Your task to perform on an android device: add a contact in the contacts app Image 0: 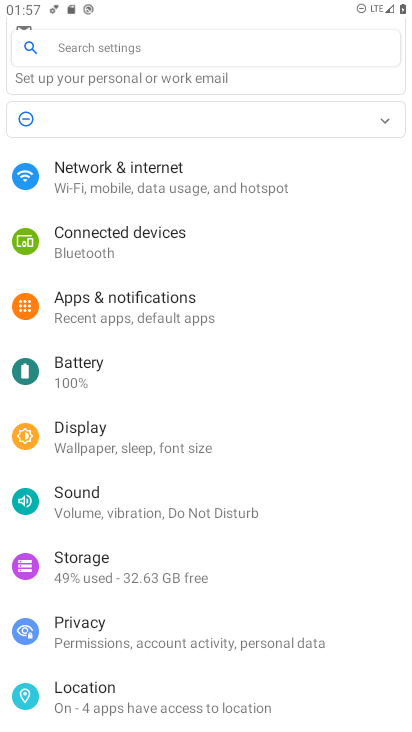
Step 0: press home button
Your task to perform on an android device: add a contact in the contacts app Image 1: 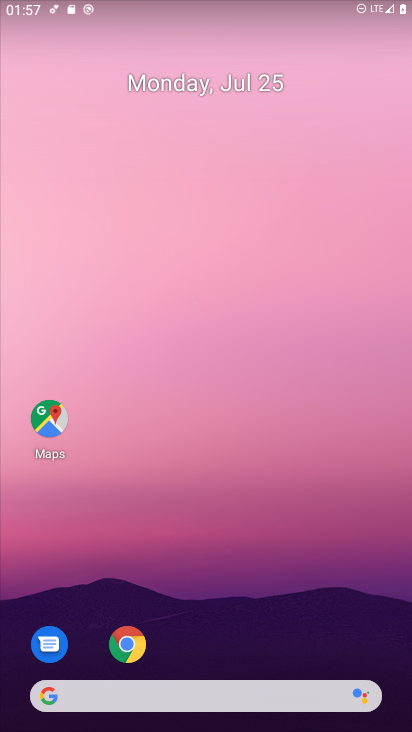
Step 1: drag from (199, 722) to (193, 219)
Your task to perform on an android device: add a contact in the contacts app Image 2: 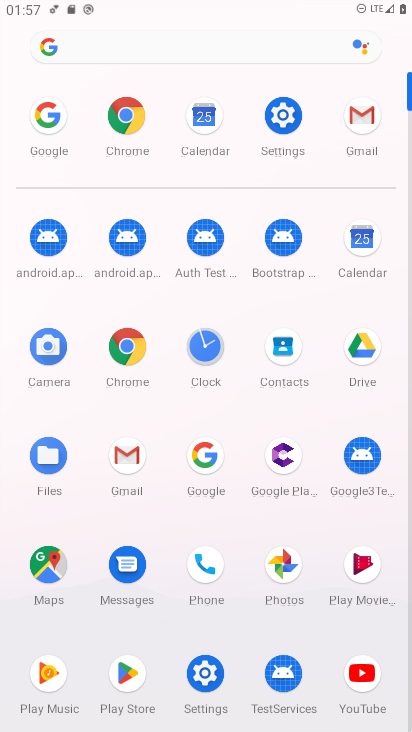
Step 2: click (289, 350)
Your task to perform on an android device: add a contact in the contacts app Image 3: 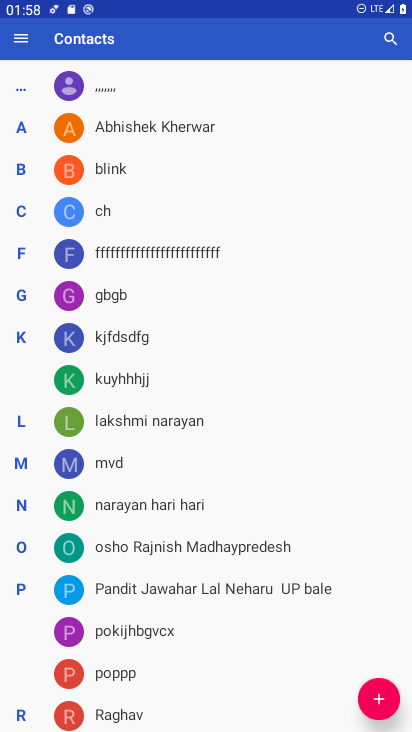
Step 3: click (373, 701)
Your task to perform on an android device: add a contact in the contacts app Image 4: 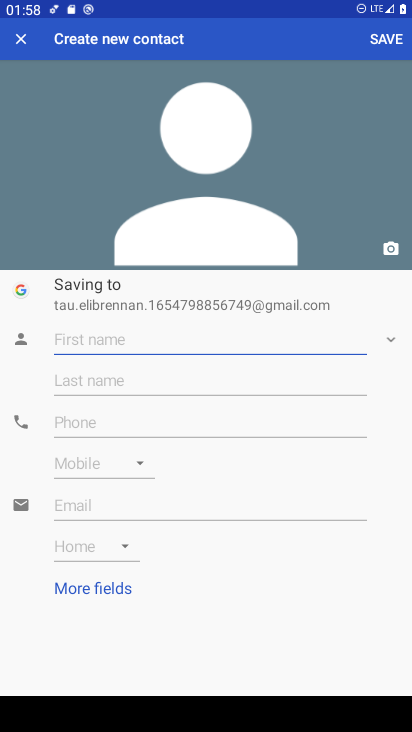
Step 4: type "ashitthama"
Your task to perform on an android device: add a contact in the contacts app Image 5: 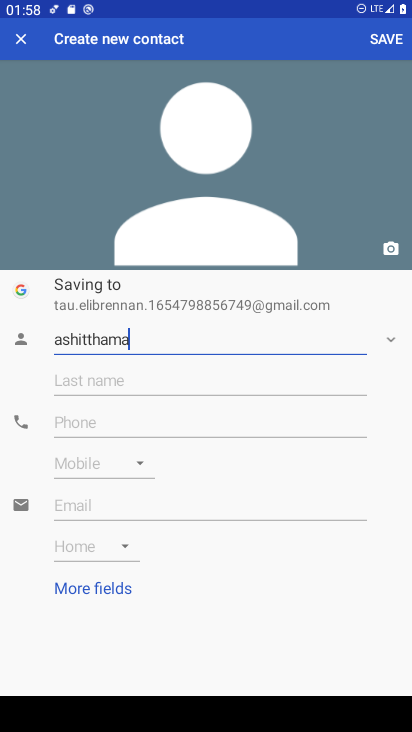
Step 5: type ""
Your task to perform on an android device: add a contact in the contacts app Image 6: 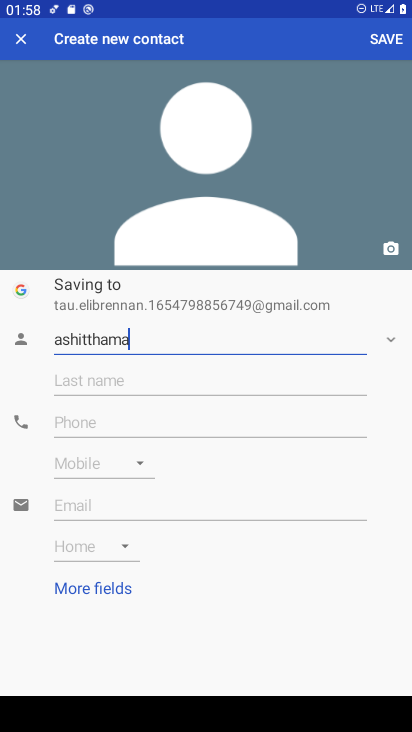
Step 6: click (120, 429)
Your task to perform on an android device: add a contact in the contacts app Image 7: 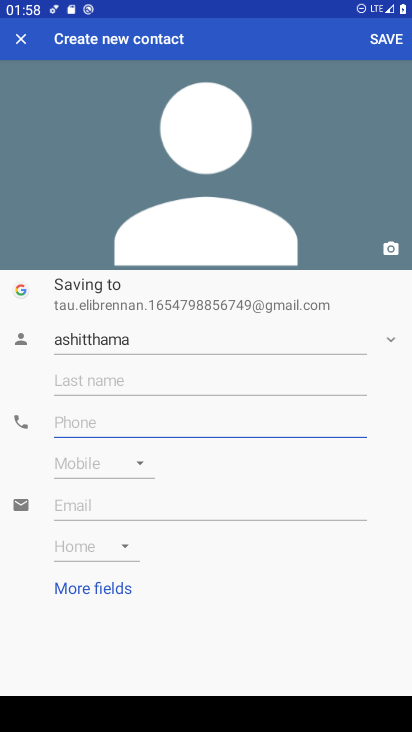
Step 7: type "67676"
Your task to perform on an android device: add a contact in the contacts app Image 8: 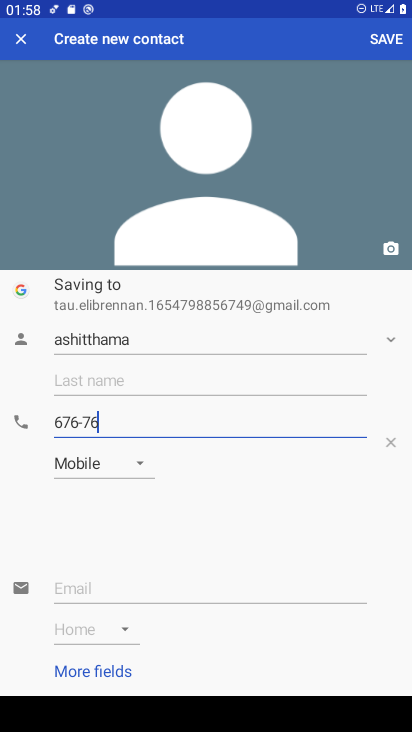
Step 8: type ""
Your task to perform on an android device: add a contact in the contacts app Image 9: 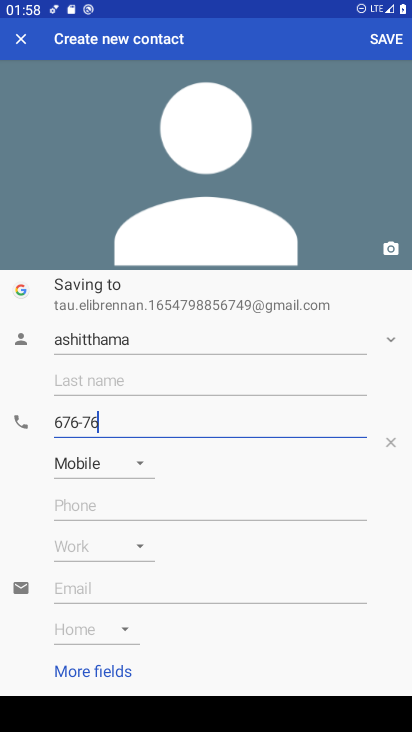
Step 9: click (394, 35)
Your task to perform on an android device: add a contact in the contacts app Image 10: 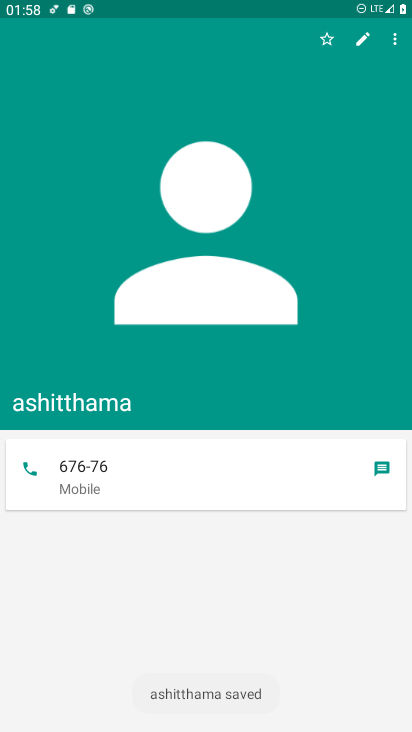
Step 10: task complete